Your task to perform on an android device: Open notification settings Image 0: 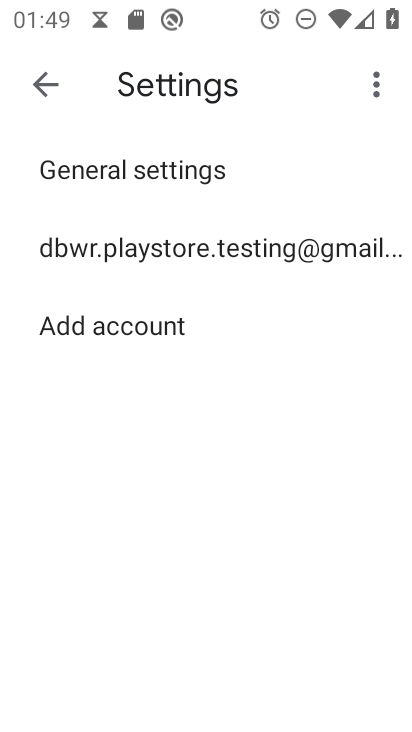
Step 0: press home button
Your task to perform on an android device: Open notification settings Image 1: 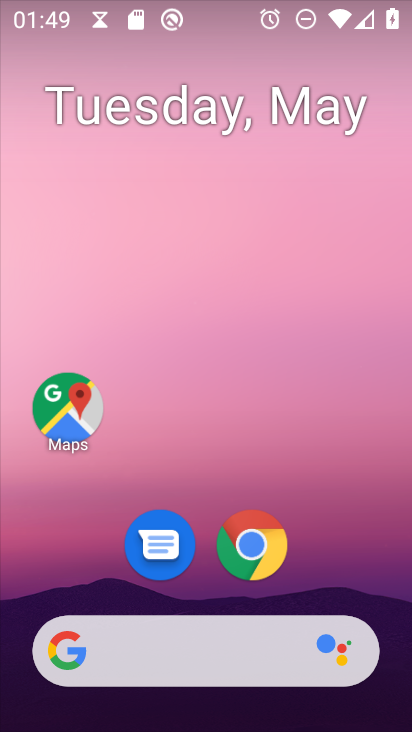
Step 1: drag from (339, 561) to (329, 15)
Your task to perform on an android device: Open notification settings Image 2: 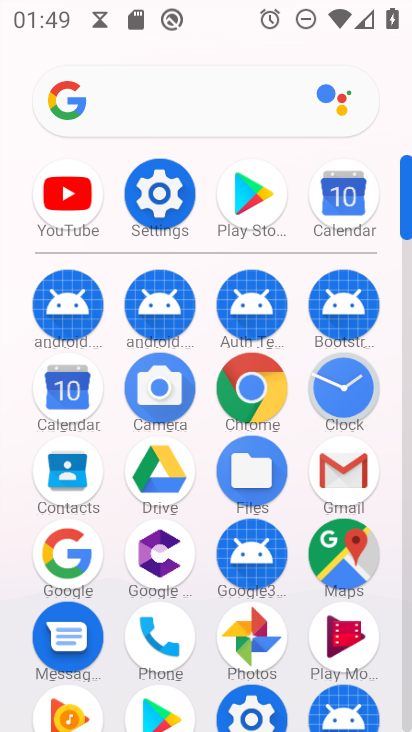
Step 2: click (156, 210)
Your task to perform on an android device: Open notification settings Image 3: 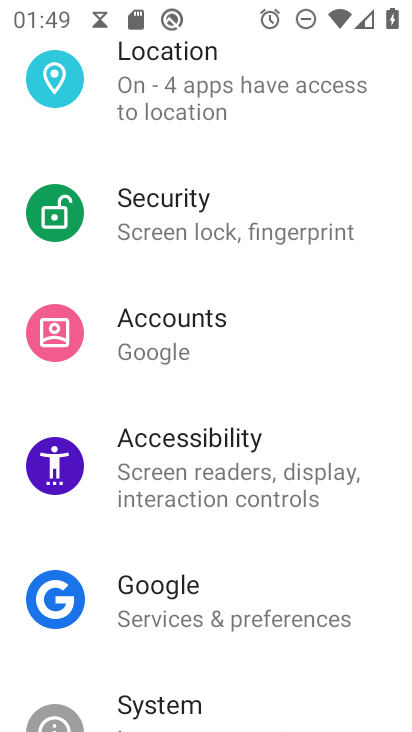
Step 3: drag from (194, 182) to (275, 468)
Your task to perform on an android device: Open notification settings Image 4: 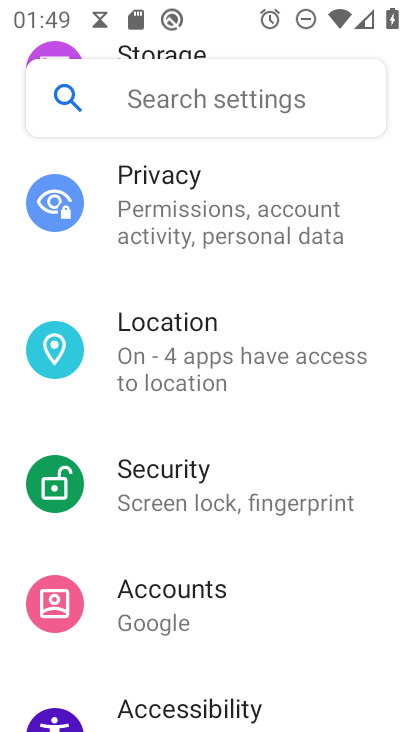
Step 4: drag from (261, 292) to (241, 495)
Your task to perform on an android device: Open notification settings Image 5: 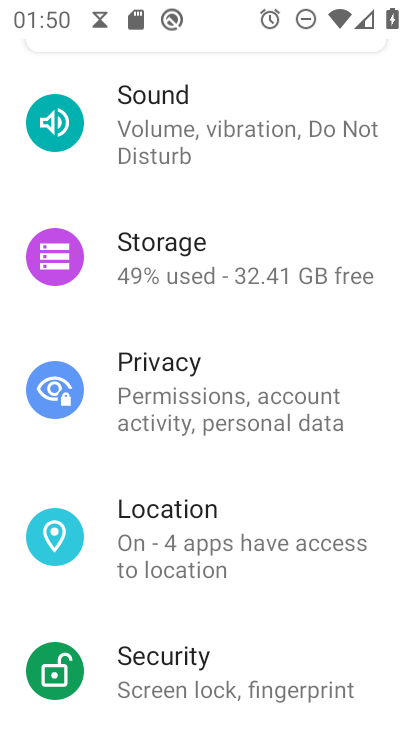
Step 5: drag from (162, 319) to (152, 518)
Your task to perform on an android device: Open notification settings Image 6: 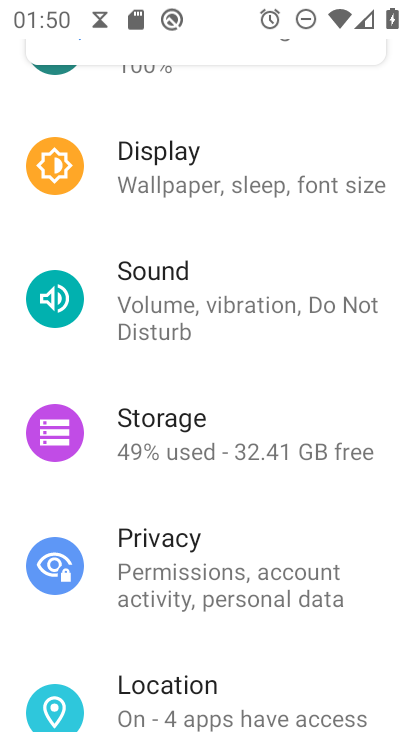
Step 6: drag from (220, 287) to (244, 528)
Your task to perform on an android device: Open notification settings Image 7: 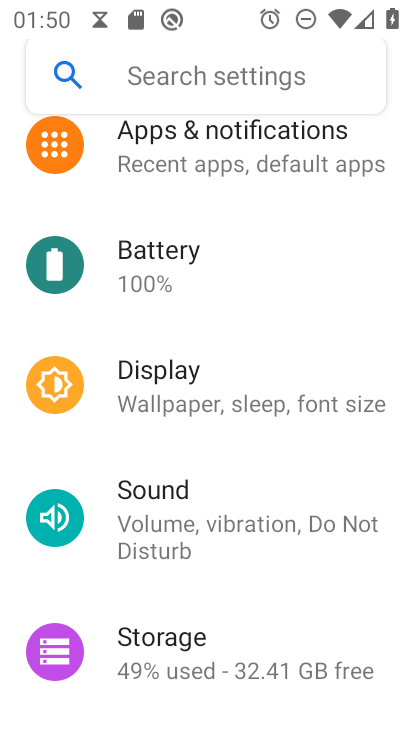
Step 7: drag from (171, 319) to (144, 574)
Your task to perform on an android device: Open notification settings Image 8: 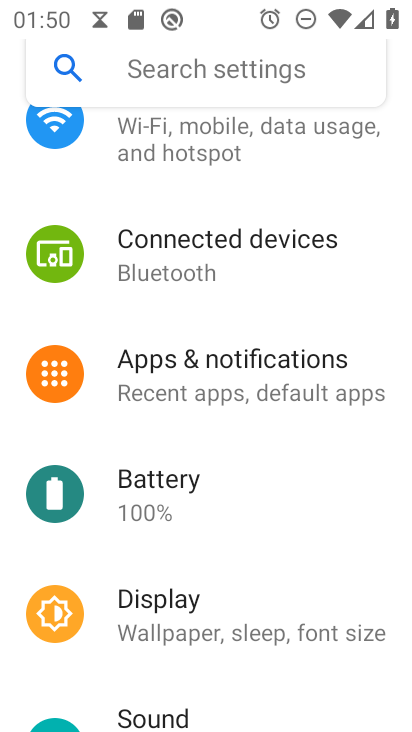
Step 8: drag from (164, 312) to (171, 515)
Your task to perform on an android device: Open notification settings Image 9: 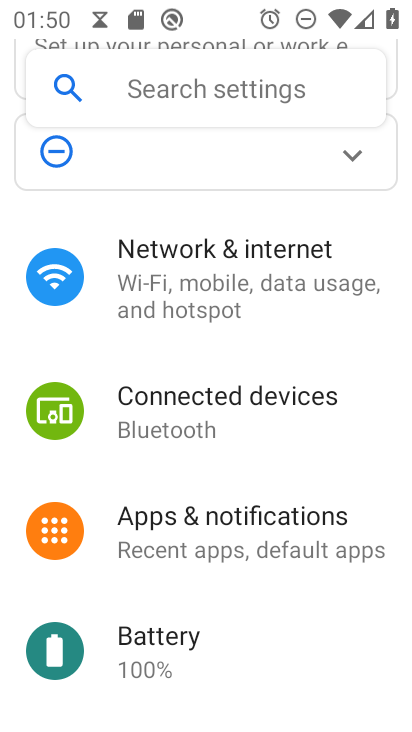
Step 9: click (141, 522)
Your task to perform on an android device: Open notification settings Image 10: 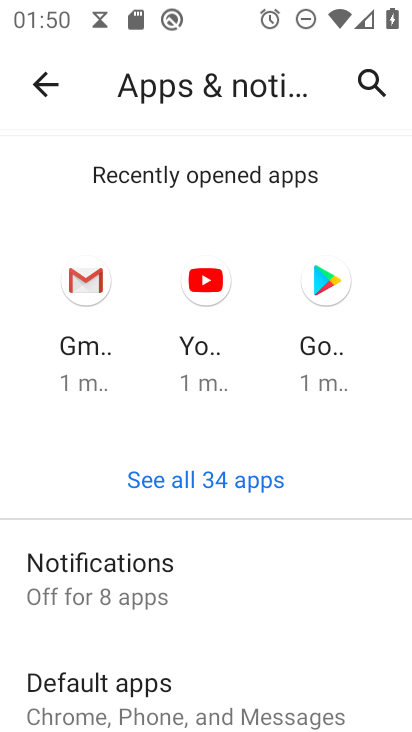
Step 10: click (171, 566)
Your task to perform on an android device: Open notification settings Image 11: 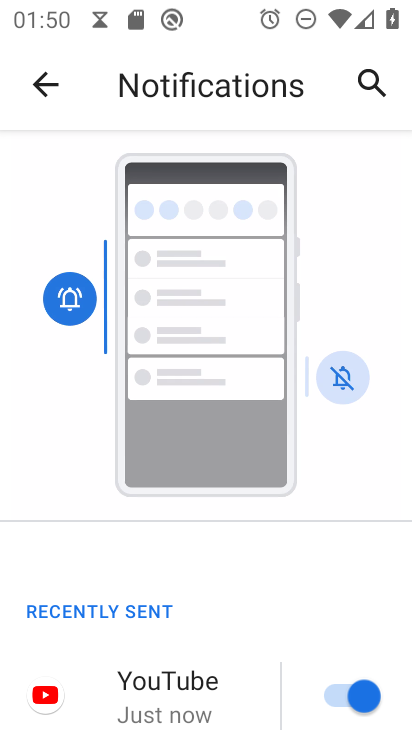
Step 11: task complete